Your task to perform on an android device: clear history in the chrome app Image 0: 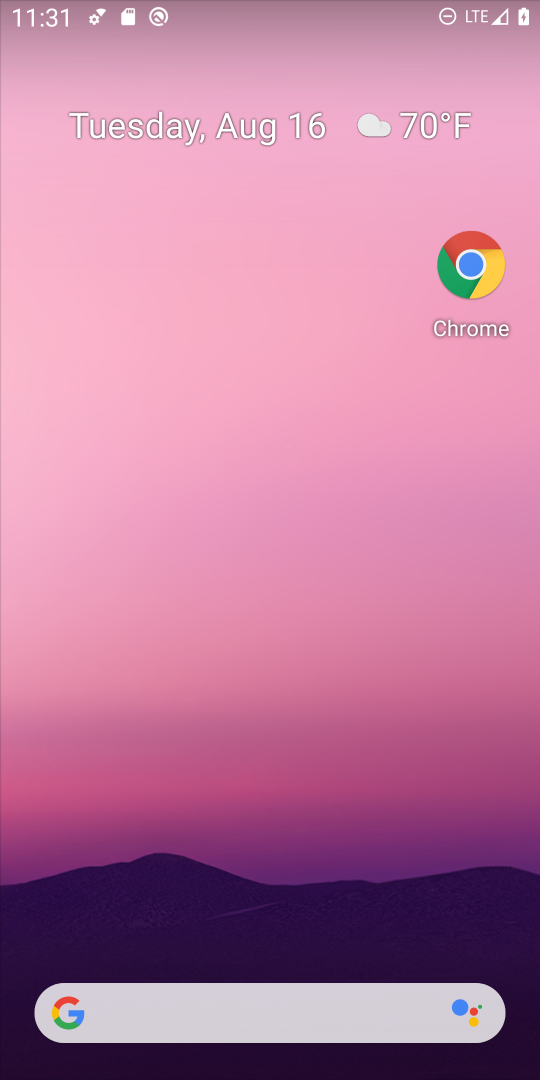
Step 0: drag from (394, 810) to (473, 392)
Your task to perform on an android device: clear history in the chrome app Image 1: 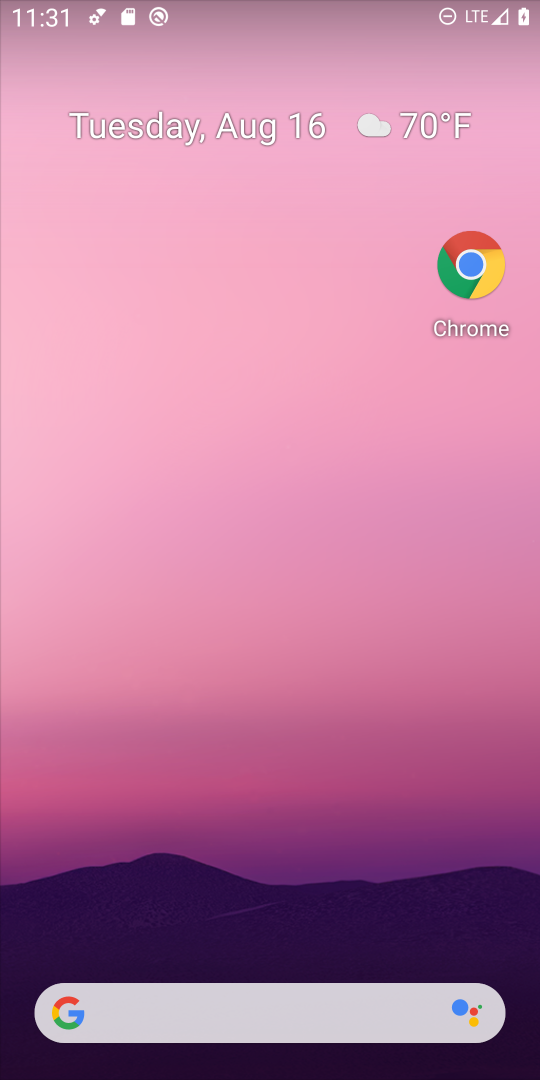
Step 1: drag from (311, 699) to (319, 185)
Your task to perform on an android device: clear history in the chrome app Image 2: 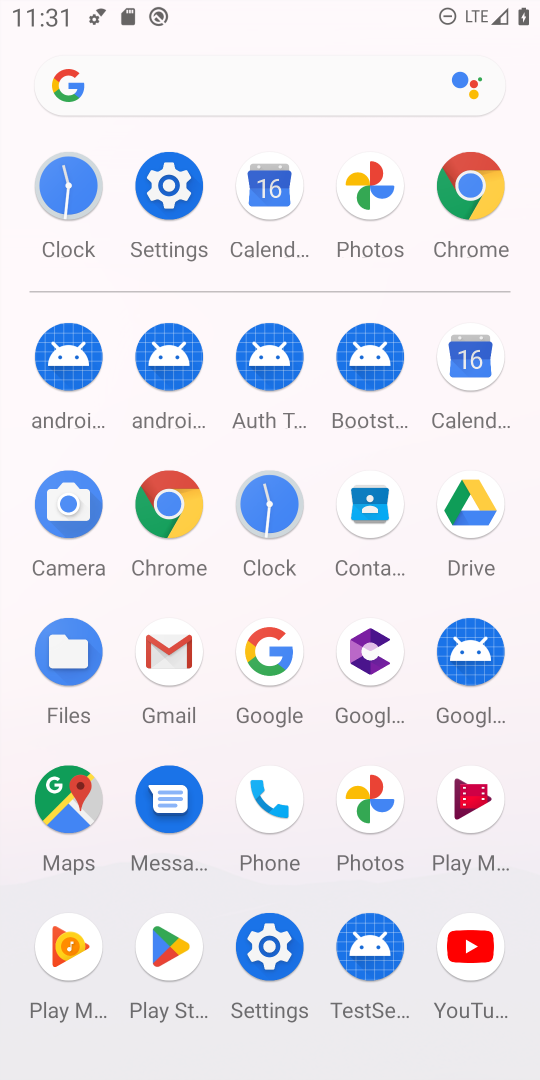
Step 2: click (480, 221)
Your task to perform on an android device: clear history in the chrome app Image 3: 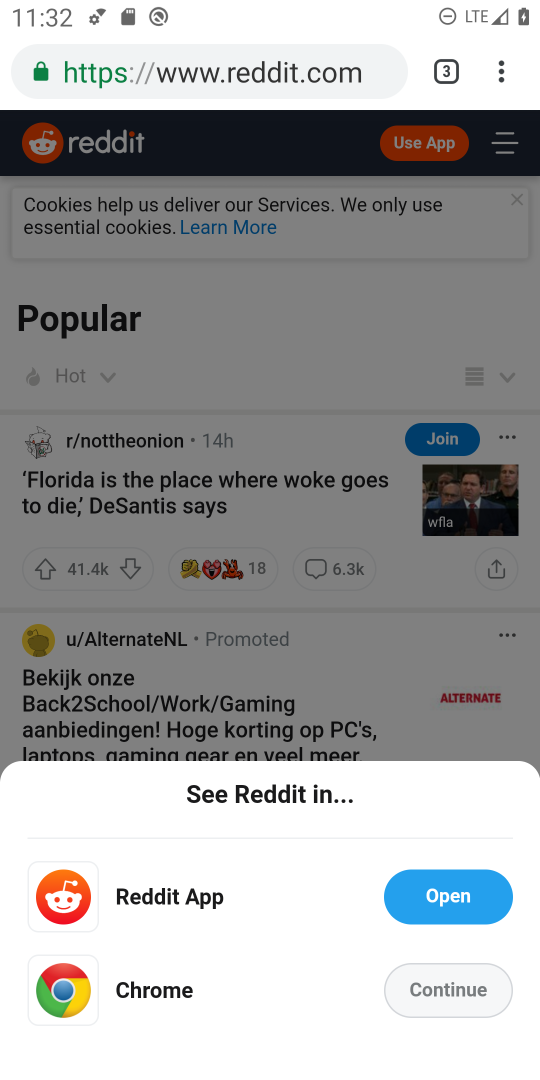
Step 3: click (502, 69)
Your task to perform on an android device: clear history in the chrome app Image 4: 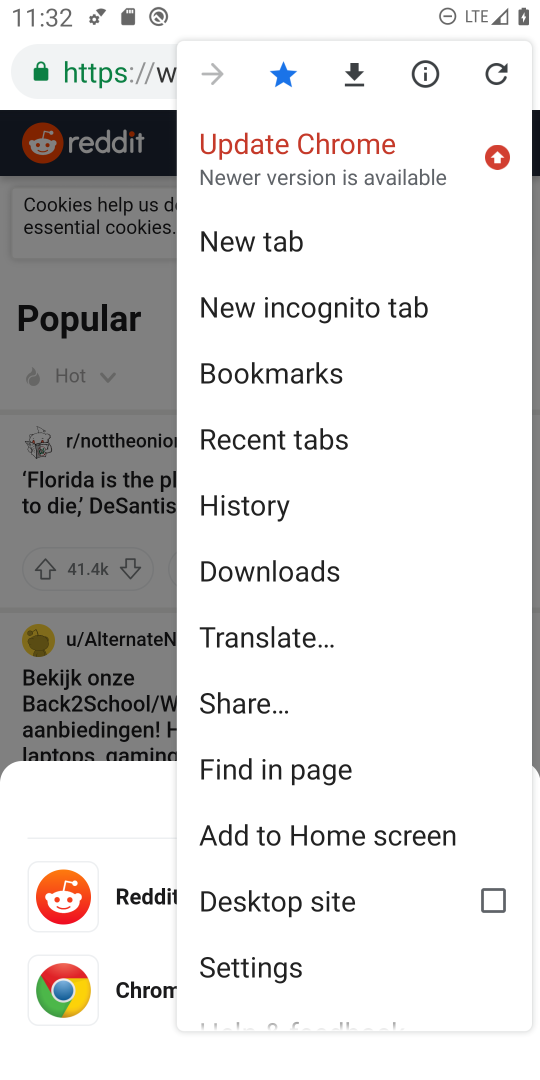
Step 4: click (271, 498)
Your task to perform on an android device: clear history in the chrome app Image 5: 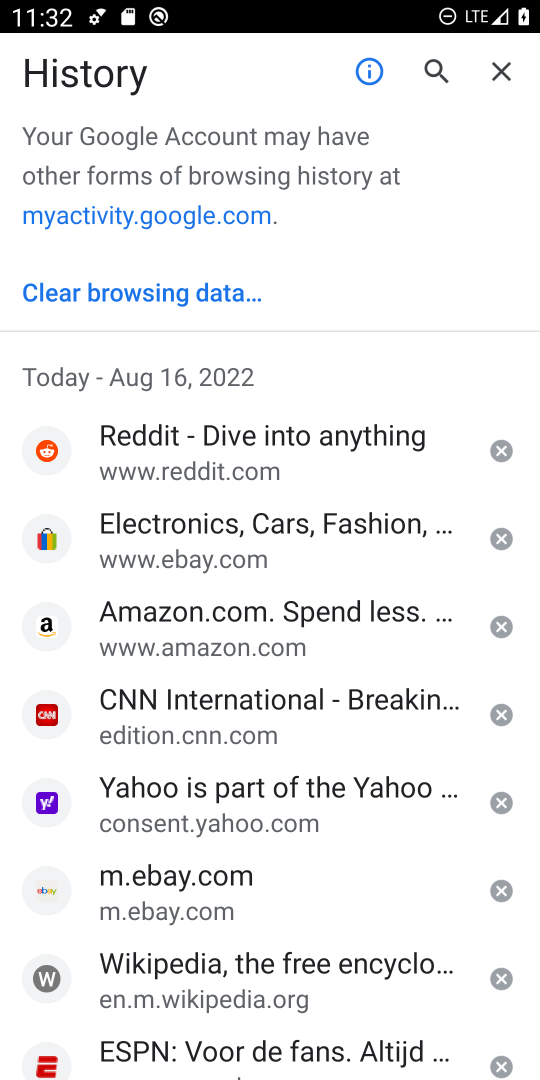
Step 5: click (163, 290)
Your task to perform on an android device: clear history in the chrome app Image 6: 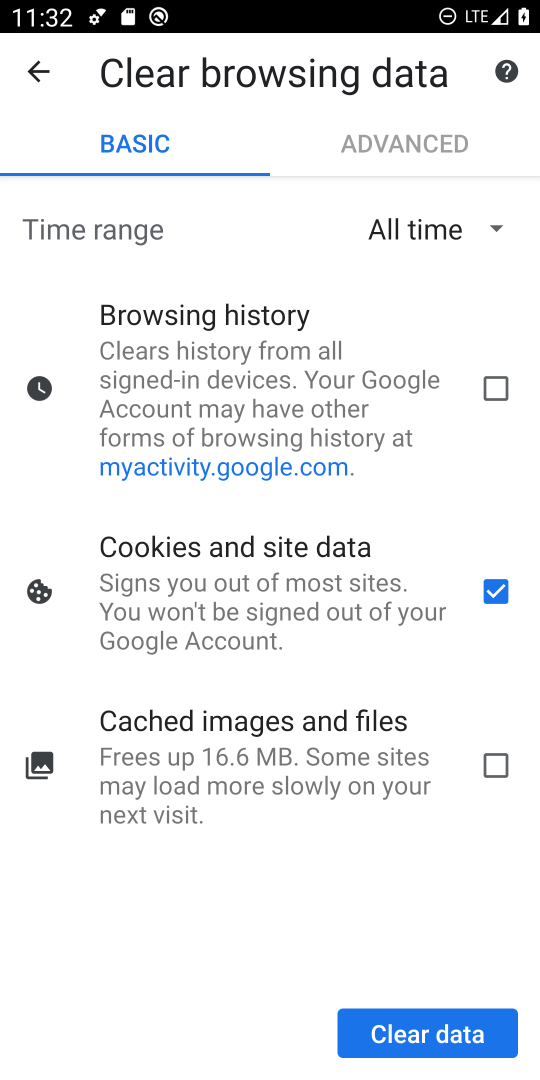
Step 6: click (484, 583)
Your task to perform on an android device: clear history in the chrome app Image 7: 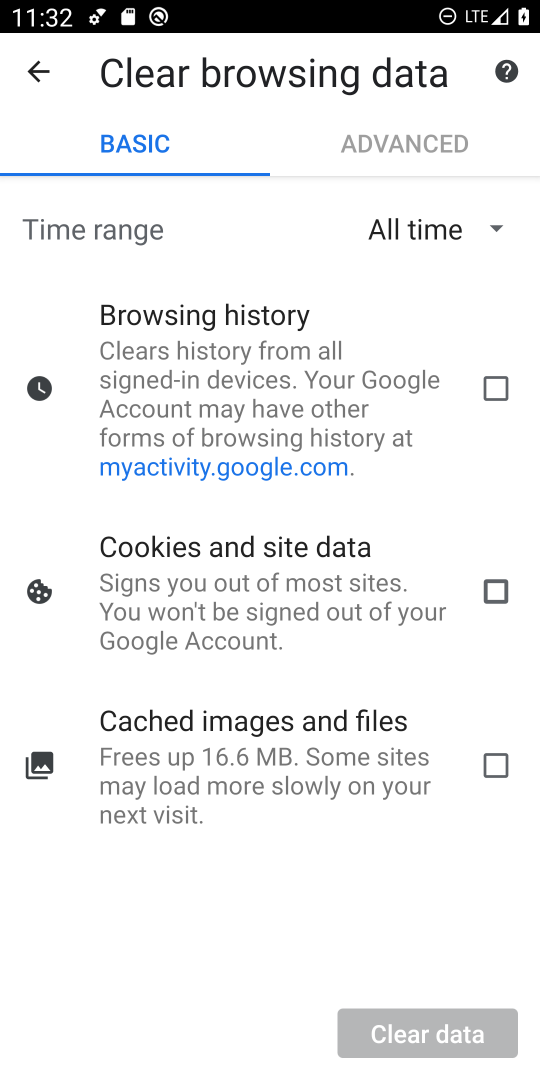
Step 7: click (497, 370)
Your task to perform on an android device: clear history in the chrome app Image 8: 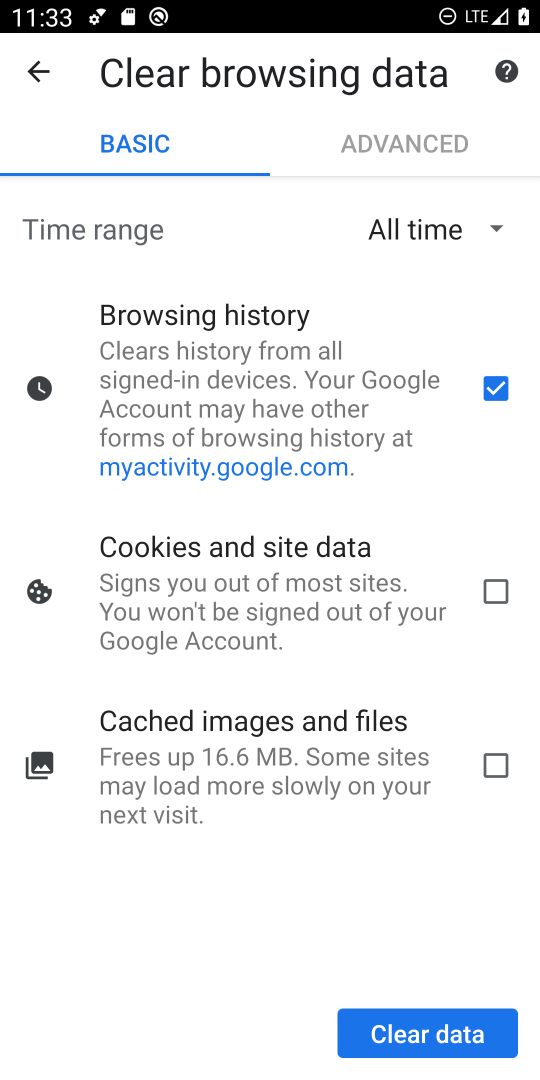
Step 8: click (436, 1010)
Your task to perform on an android device: clear history in the chrome app Image 9: 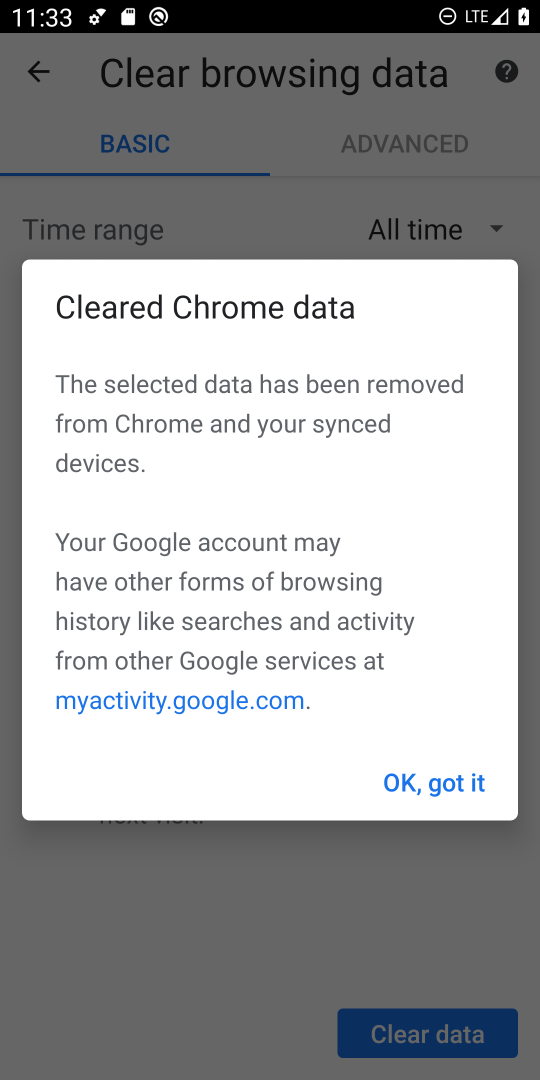
Step 9: click (424, 777)
Your task to perform on an android device: clear history in the chrome app Image 10: 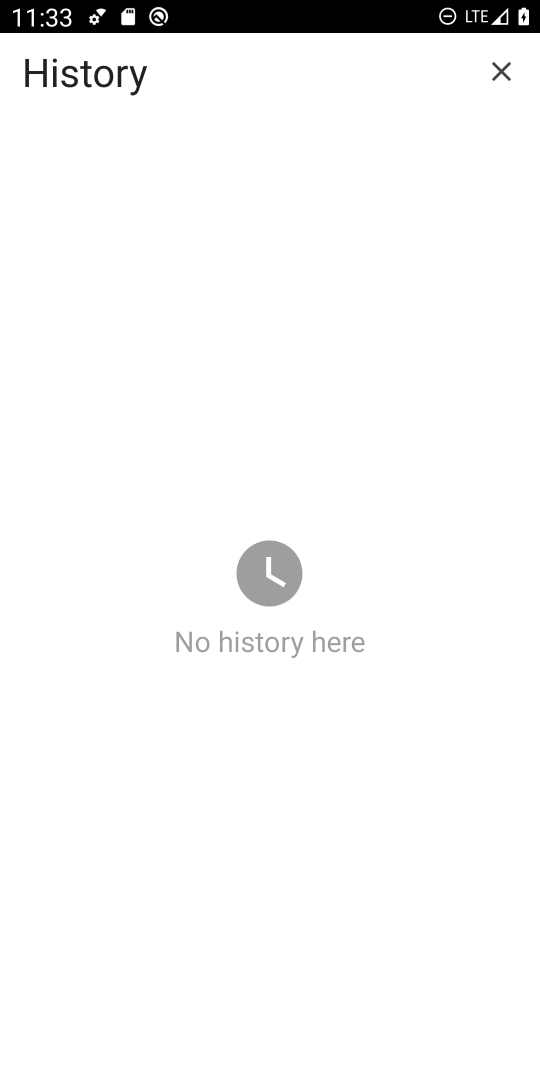
Step 10: task complete